Your task to perform on an android device: Search for sushi restaurants on Maps Image 0: 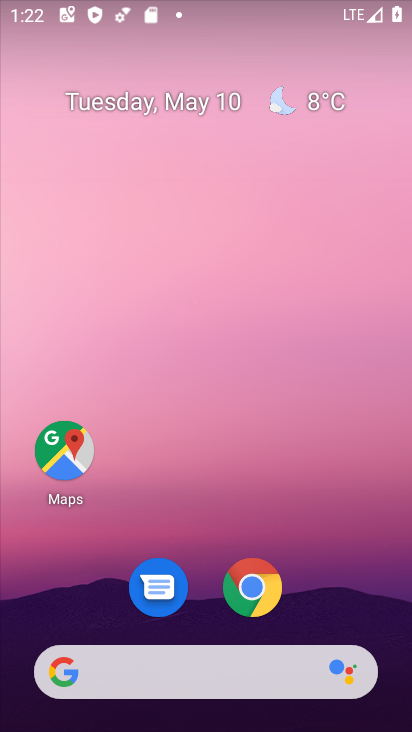
Step 0: click (56, 438)
Your task to perform on an android device: Search for sushi restaurants on Maps Image 1: 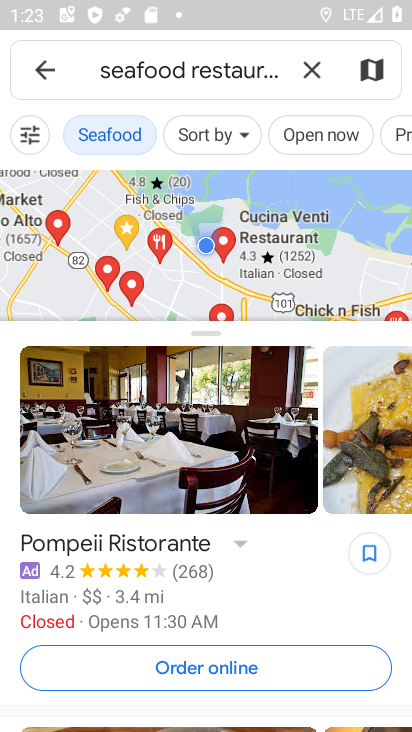
Step 1: click (255, 75)
Your task to perform on an android device: Search for sushi restaurants on Maps Image 2: 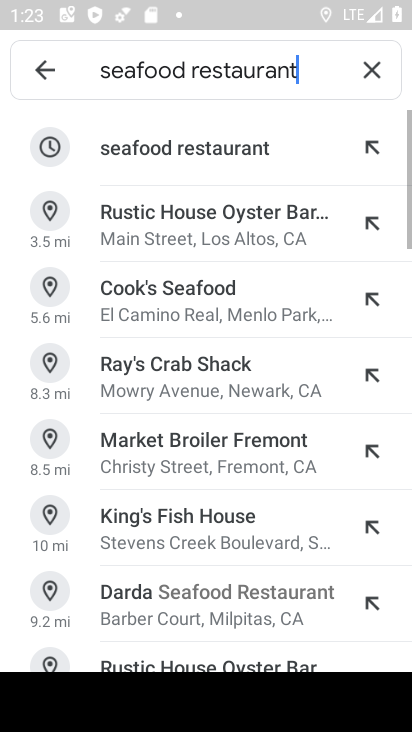
Step 2: click (372, 71)
Your task to perform on an android device: Search for sushi restaurants on Maps Image 3: 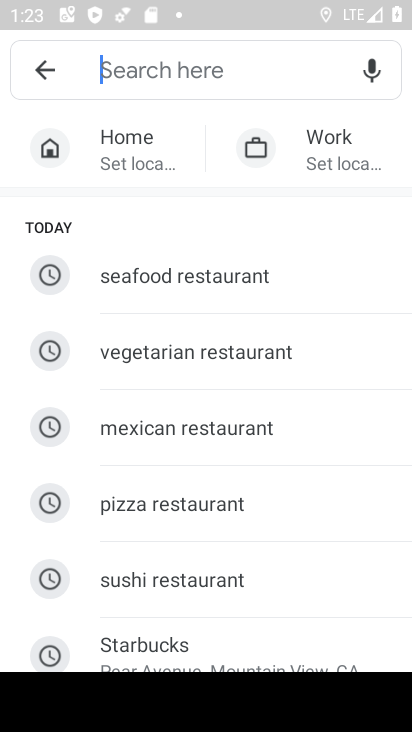
Step 3: click (206, 583)
Your task to perform on an android device: Search for sushi restaurants on Maps Image 4: 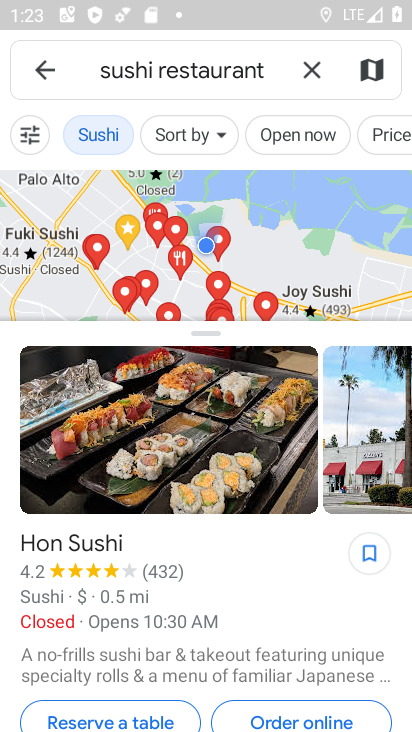
Step 4: task complete